Your task to perform on an android device: Open settings Image 0: 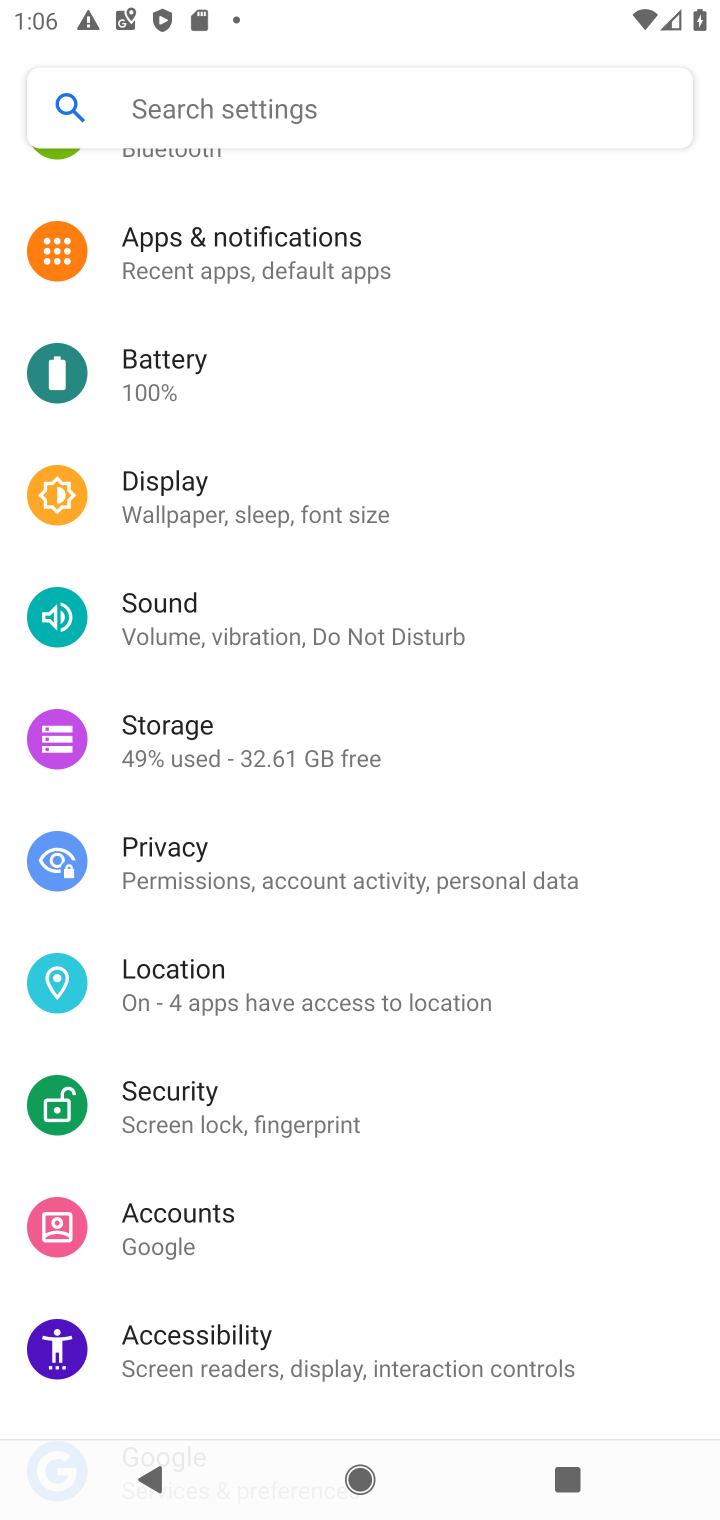
Step 0: press home button
Your task to perform on an android device: Open settings Image 1: 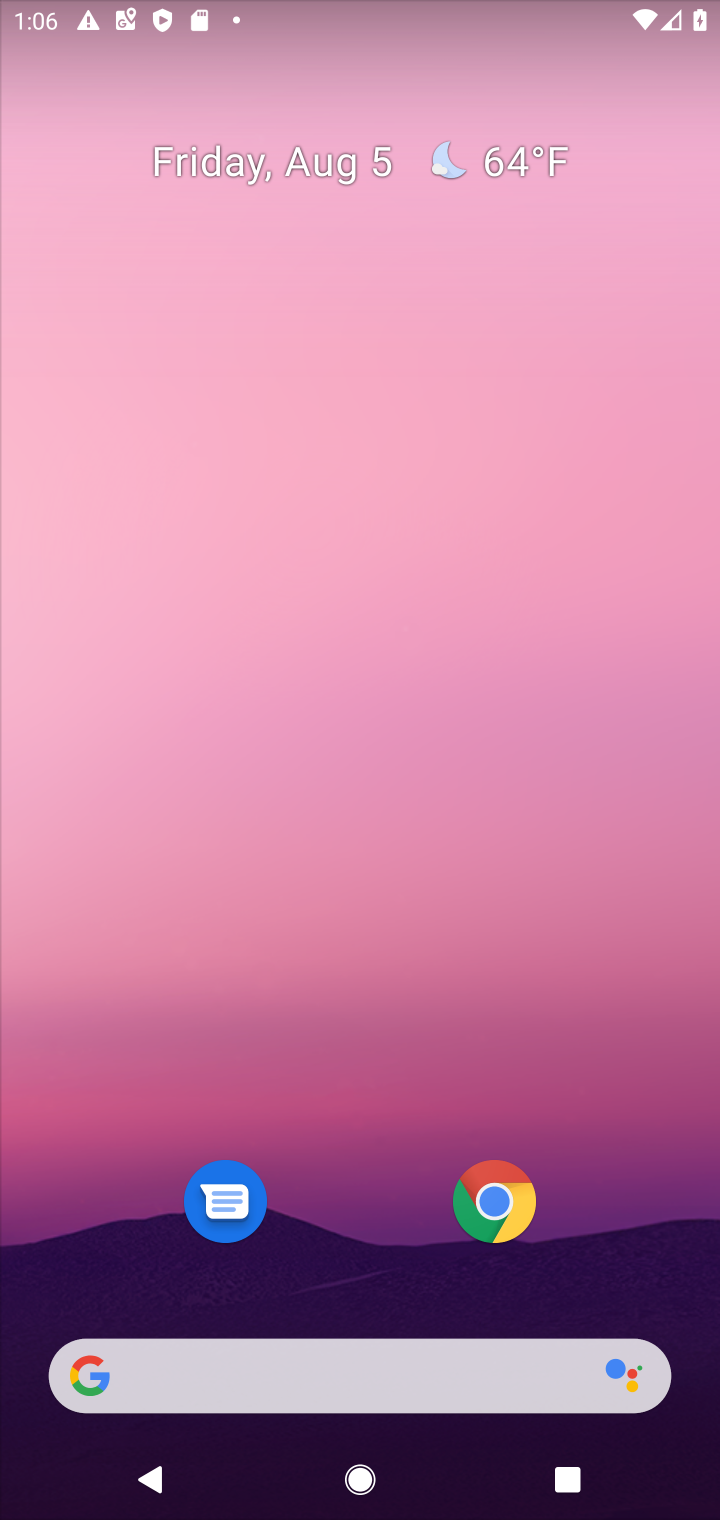
Step 1: drag from (630, 1232) to (288, 17)
Your task to perform on an android device: Open settings Image 2: 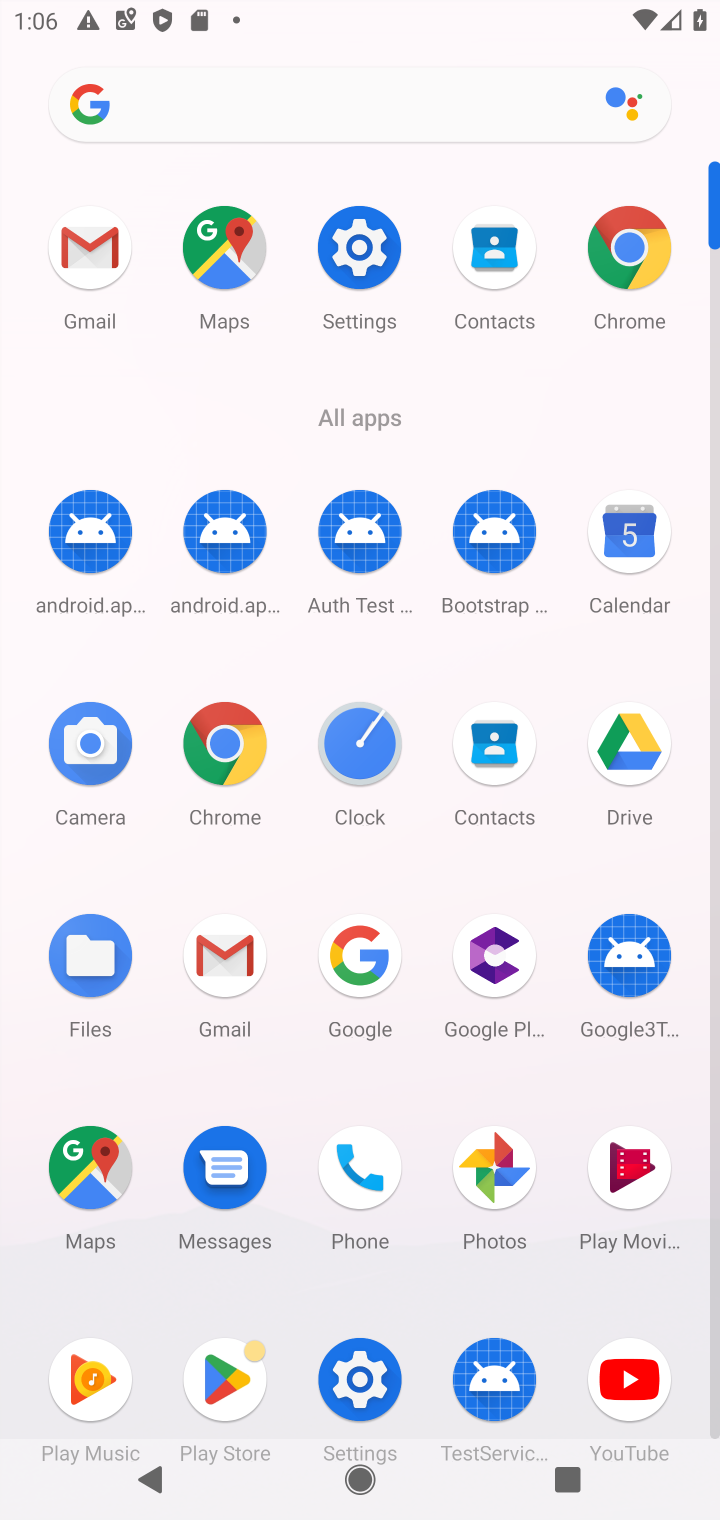
Step 2: click (375, 282)
Your task to perform on an android device: Open settings Image 3: 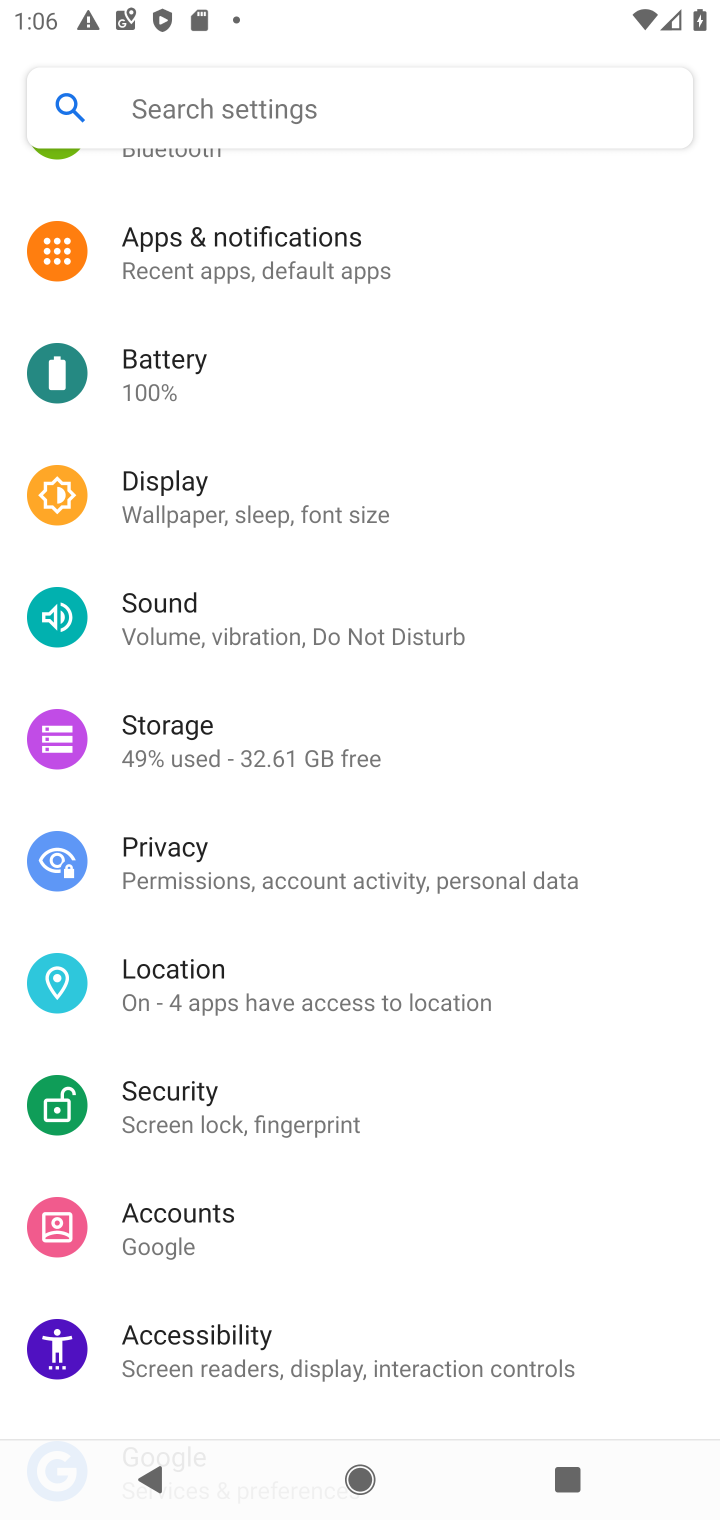
Step 3: task complete